Your task to perform on an android device: Open privacy settings Image 0: 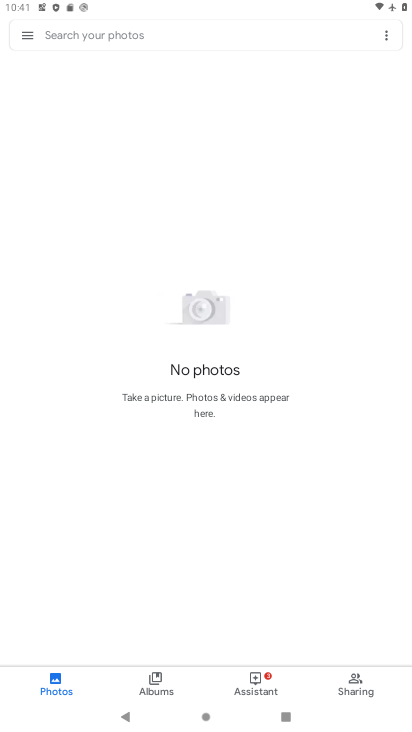
Step 0: press home button
Your task to perform on an android device: Open privacy settings Image 1: 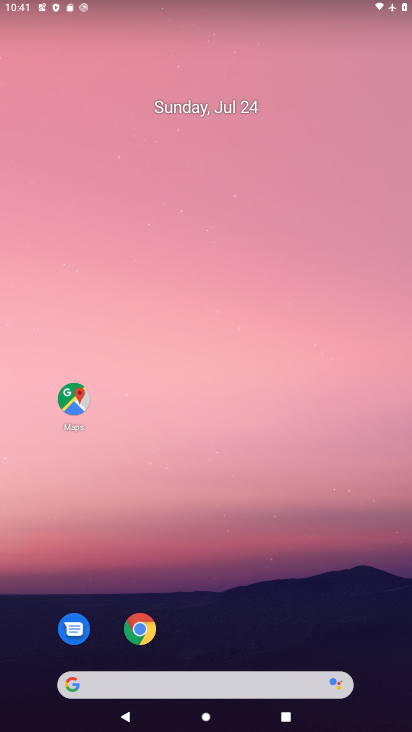
Step 1: task complete